Your task to perform on an android device: Open notification settings Image 0: 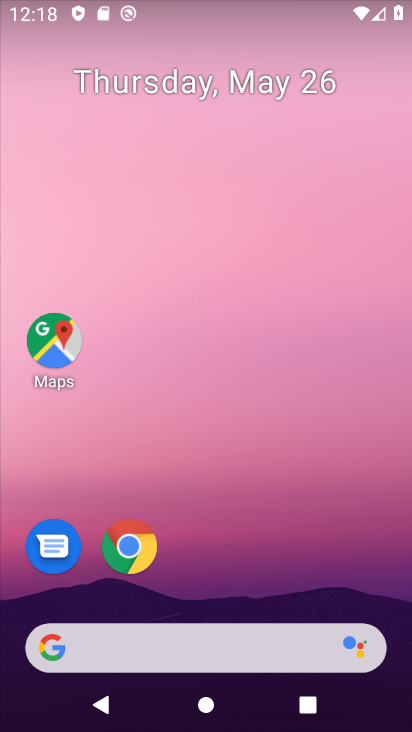
Step 0: drag from (365, 593) to (274, 121)
Your task to perform on an android device: Open notification settings Image 1: 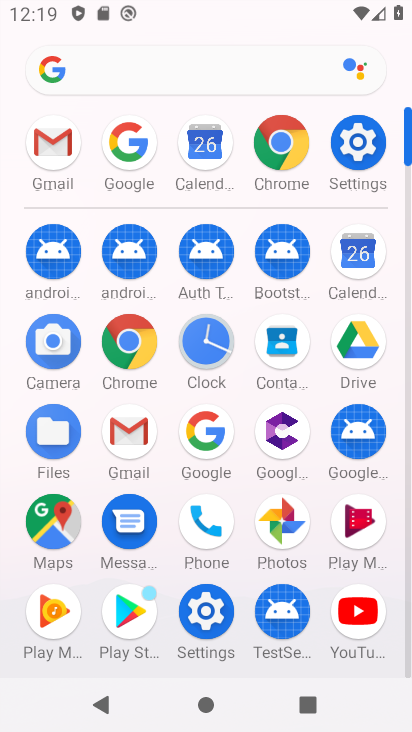
Step 1: click (195, 643)
Your task to perform on an android device: Open notification settings Image 2: 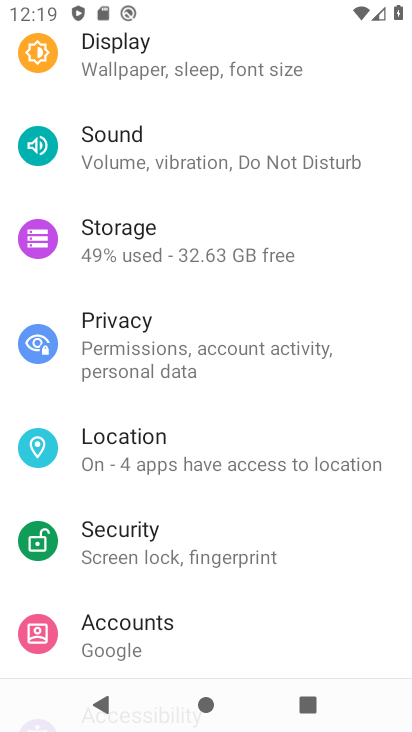
Step 2: drag from (196, 348) to (193, 577)
Your task to perform on an android device: Open notification settings Image 3: 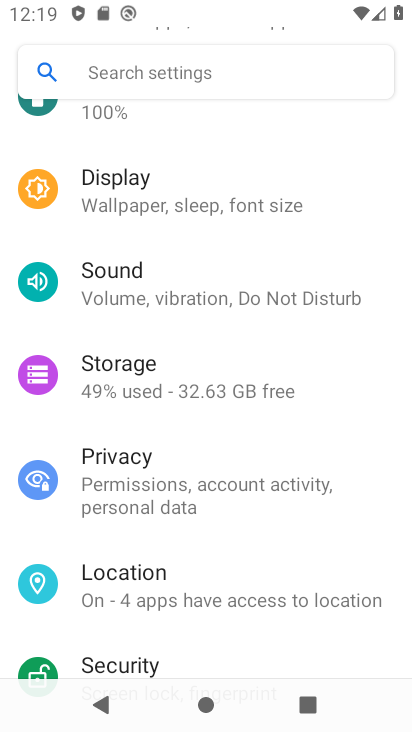
Step 3: drag from (253, 174) to (273, 621)
Your task to perform on an android device: Open notification settings Image 4: 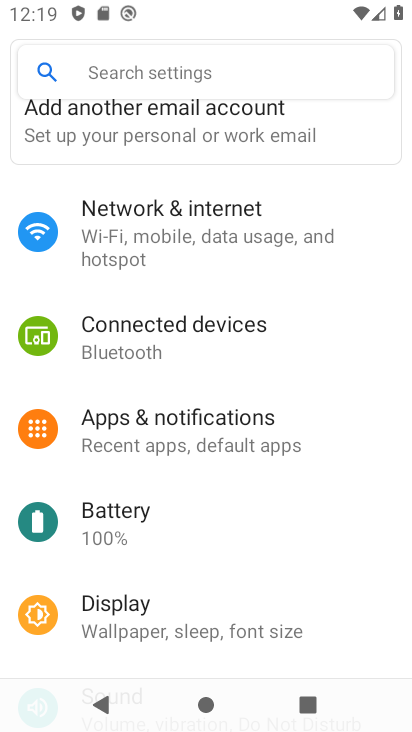
Step 4: click (167, 423)
Your task to perform on an android device: Open notification settings Image 5: 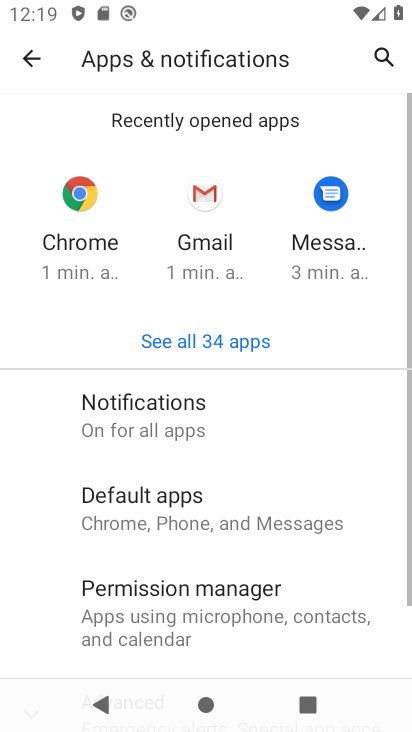
Step 5: click (167, 423)
Your task to perform on an android device: Open notification settings Image 6: 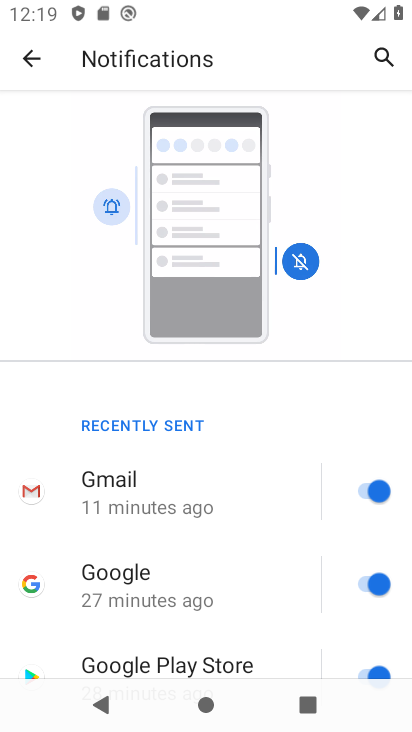
Step 6: task complete